Your task to perform on an android device: What is the recent news? Image 0: 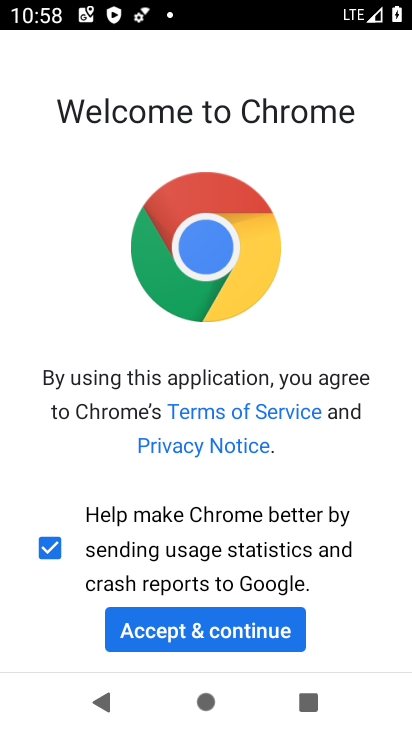
Step 0: press home button
Your task to perform on an android device: What is the recent news? Image 1: 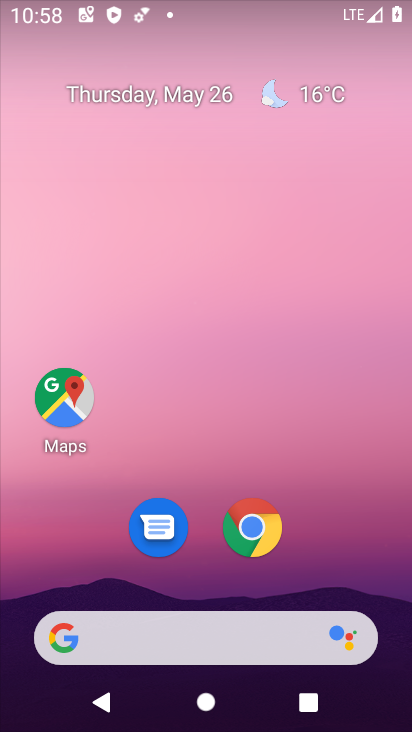
Step 1: click (122, 636)
Your task to perform on an android device: What is the recent news? Image 2: 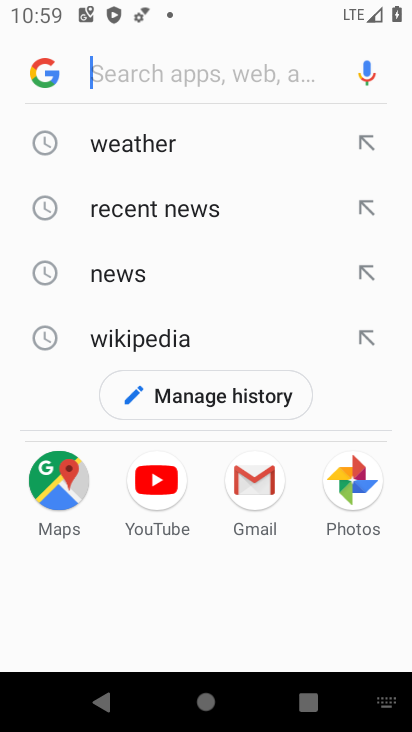
Step 2: type "what is the recent news"
Your task to perform on an android device: What is the recent news? Image 3: 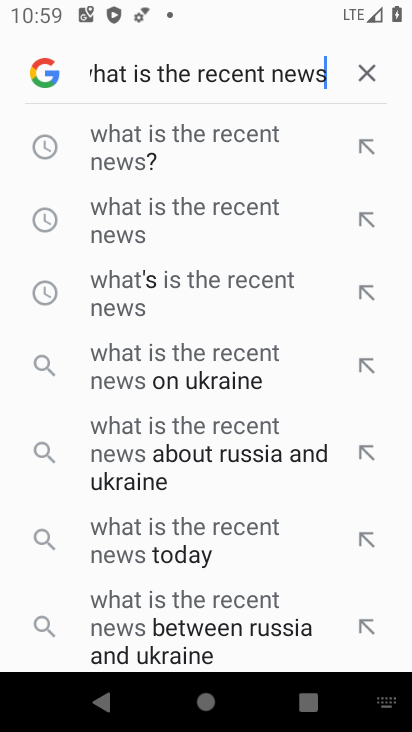
Step 3: click (144, 139)
Your task to perform on an android device: What is the recent news? Image 4: 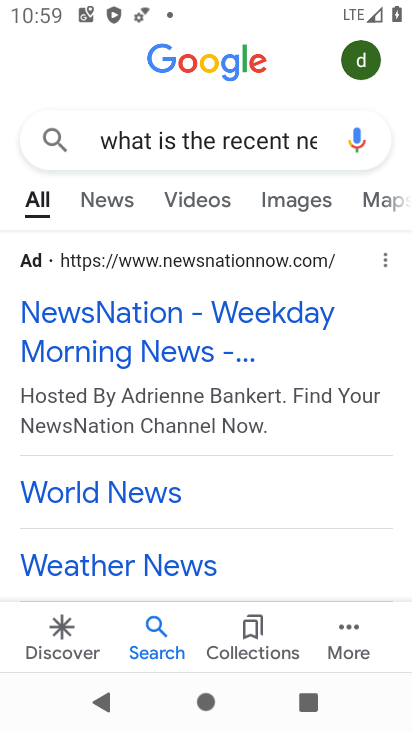
Step 4: click (109, 206)
Your task to perform on an android device: What is the recent news? Image 5: 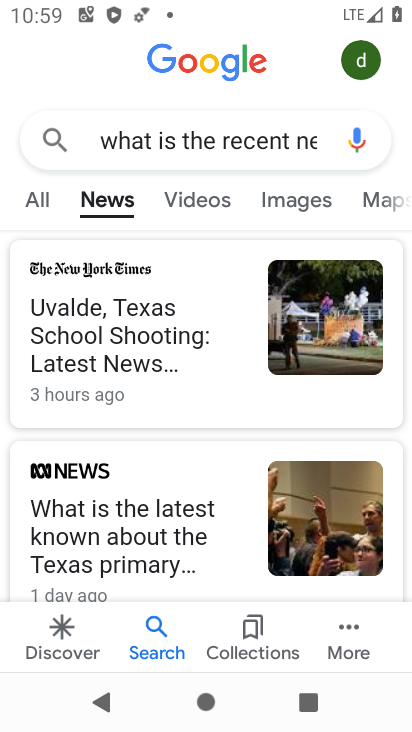
Step 5: task complete